Your task to perform on an android device: Show me the alarms in the clock app Image 0: 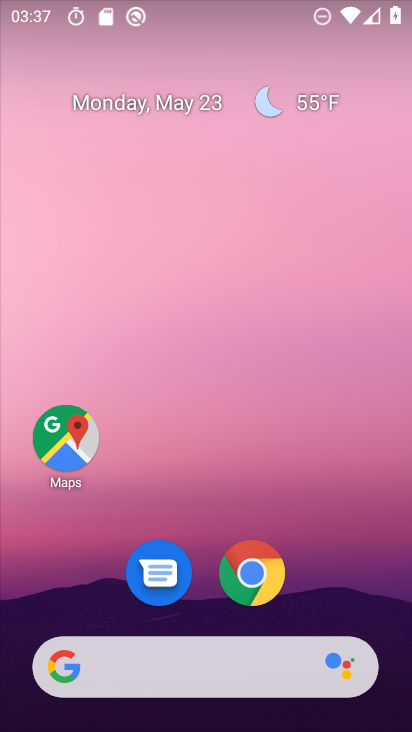
Step 0: drag from (355, 579) to (265, 66)
Your task to perform on an android device: Show me the alarms in the clock app Image 1: 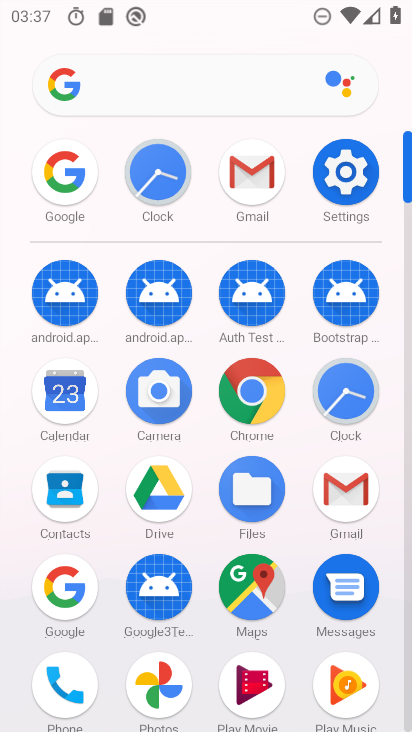
Step 1: click (338, 399)
Your task to perform on an android device: Show me the alarms in the clock app Image 2: 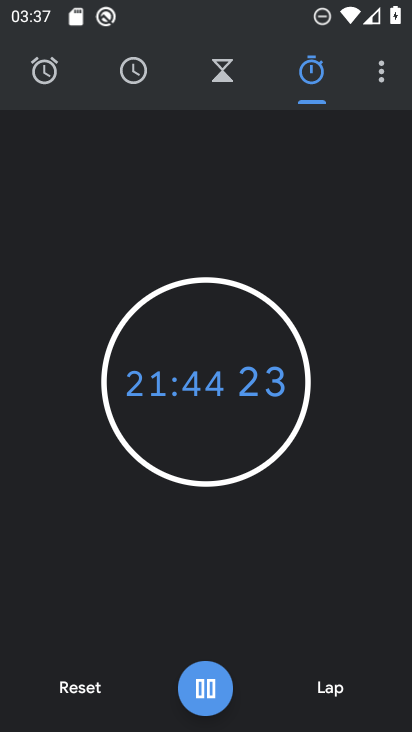
Step 2: click (56, 65)
Your task to perform on an android device: Show me the alarms in the clock app Image 3: 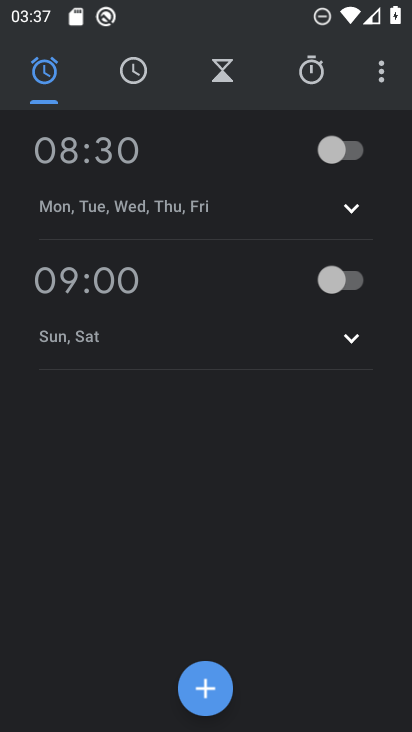
Step 3: task complete